Your task to perform on an android device: turn off location Image 0: 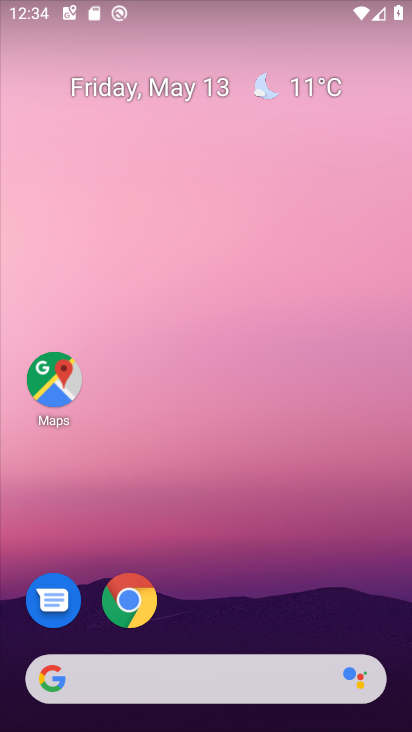
Step 0: drag from (186, 519) to (219, 53)
Your task to perform on an android device: turn off location Image 1: 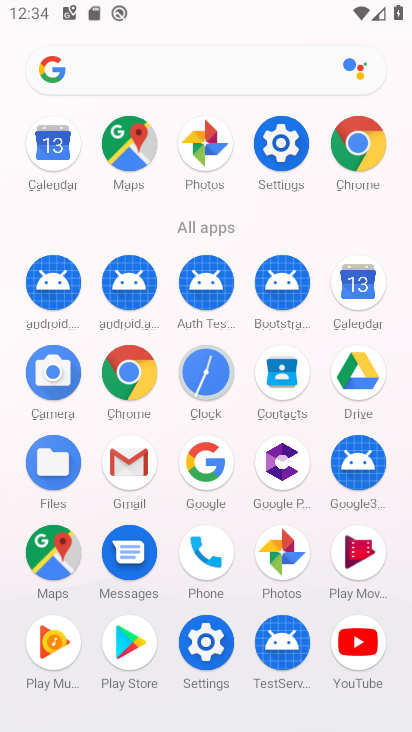
Step 1: click (271, 151)
Your task to perform on an android device: turn off location Image 2: 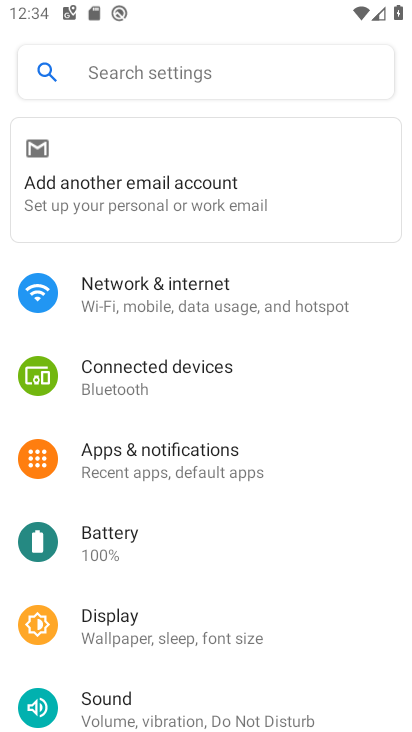
Step 2: drag from (171, 579) to (225, 257)
Your task to perform on an android device: turn off location Image 3: 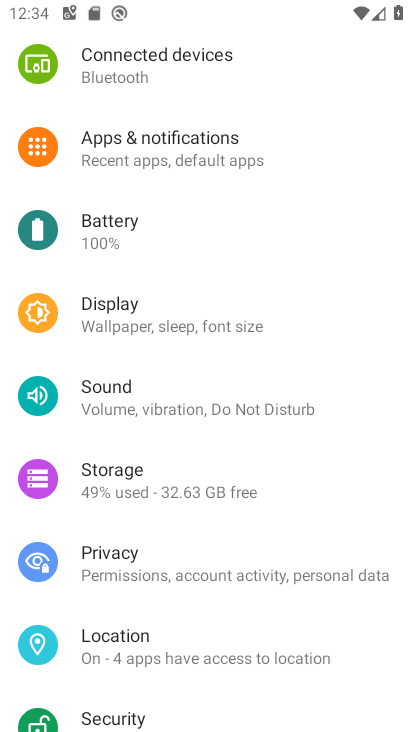
Step 3: click (163, 625)
Your task to perform on an android device: turn off location Image 4: 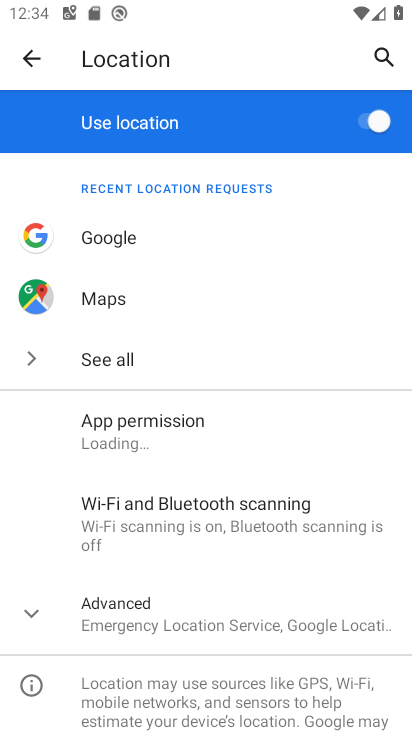
Step 4: click (371, 115)
Your task to perform on an android device: turn off location Image 5: 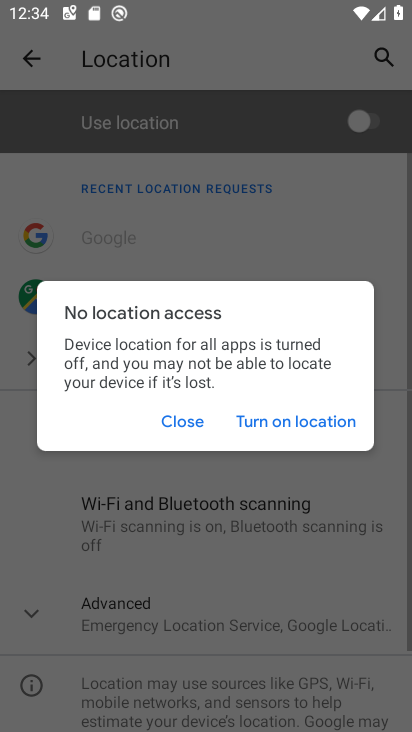
Step 5: task complete